Your task to perform on an android device: Open network settings Image 0: 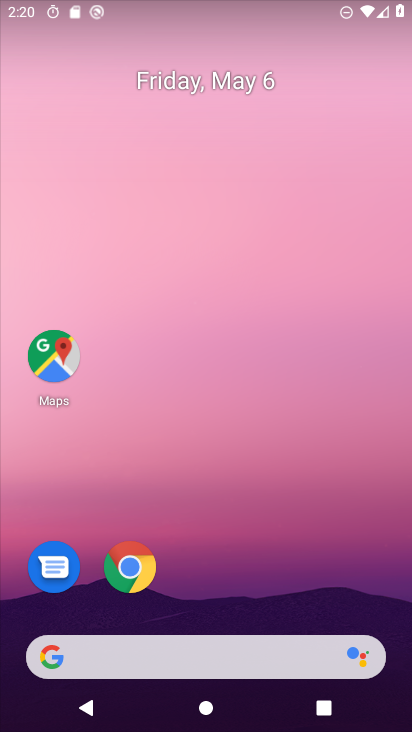
Step 0: drag from (292, 692) to (251, 290)
Your task to perform on an android device: Open network settings Image 1: 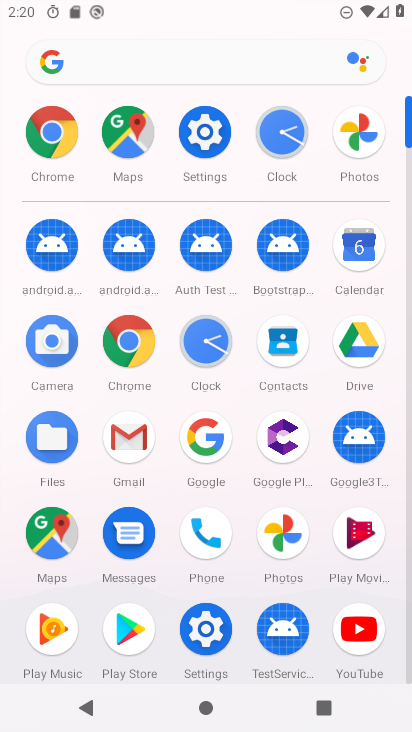
Step 1: click (201, 136)
Your task to perform on an android device: Open network settings Image 2: 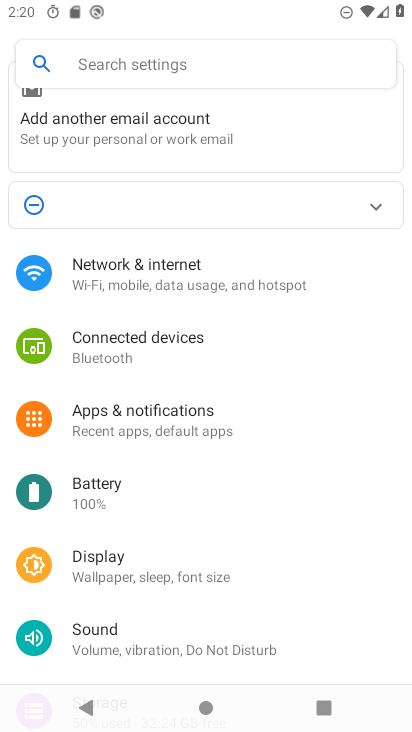
Step 2: click (132, 300)
Your task to perform on an android device: Open network settings Image 3: 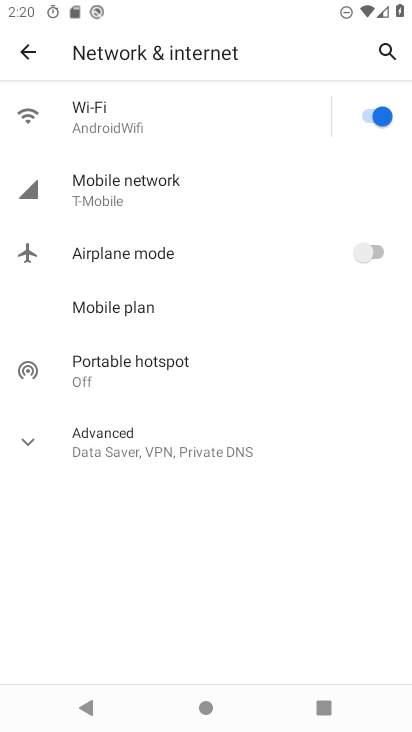
Step 3: task complete